Your task to perform on an android device: Open settings on Google Maps Image 0: 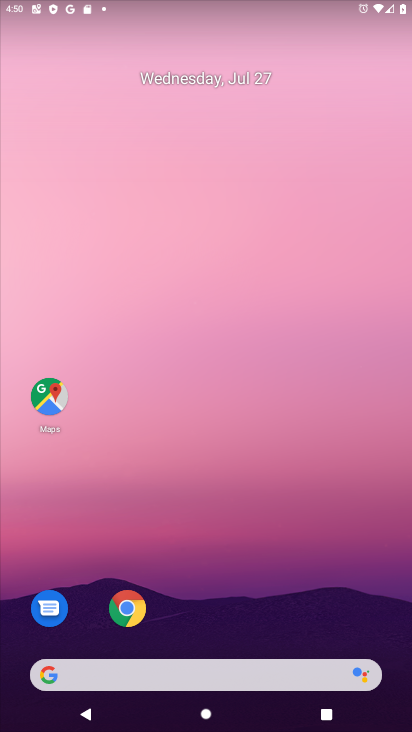
Step 0: drag from (199, 632) to (47, 22)
Your task to perform on an android device: Open settings on Google Maps Image 1: 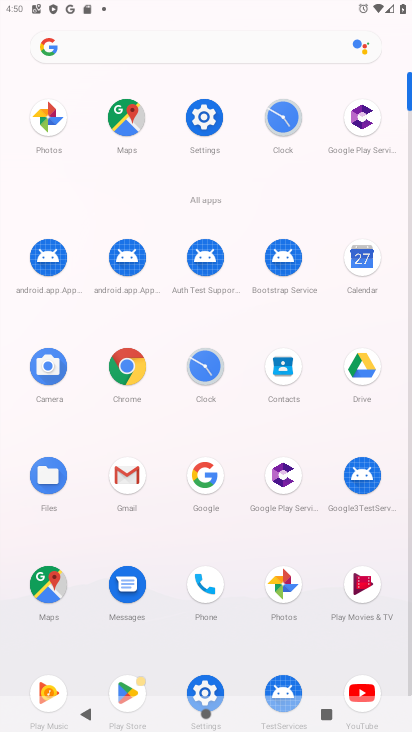
Step 1: click (55, 580)
Your task to perform on an android device: Open settings on Google Maps Image 2: 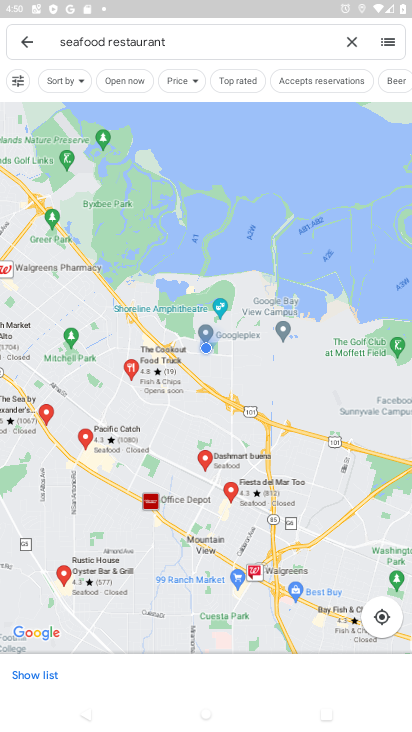
Step 2: click (24, 45)
Your task to perform on an android device: Open settings on Google Maps Image 3: 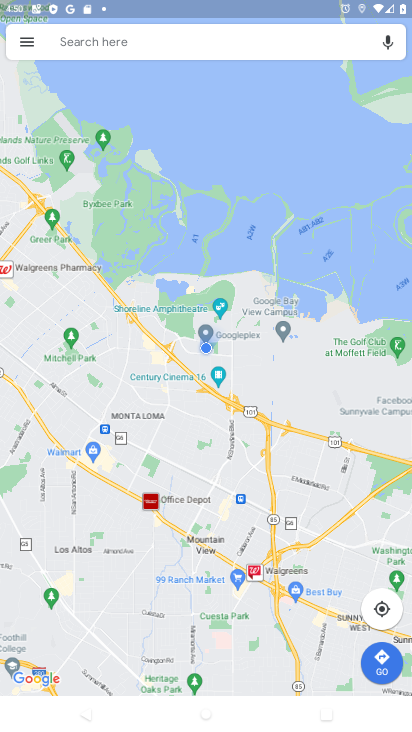
Step 3: click (24, 45)
Your task to perform on an android device: Open settings on Google Maps Image 4: 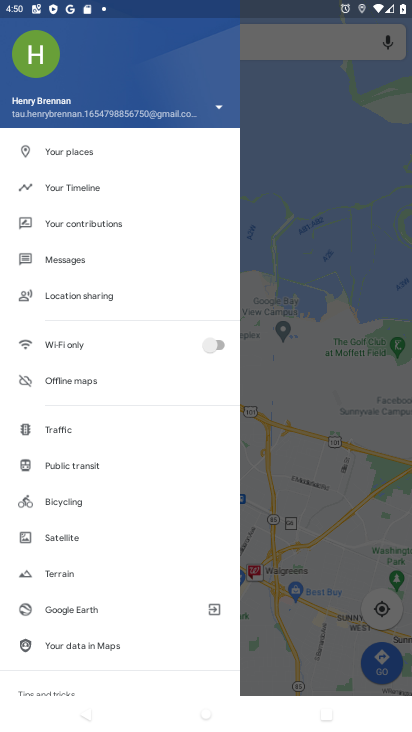
Step 4: drag from (112, 555) to (35, 160)
Your task to perform on an android device: Open settings on Google Maps Image 5: 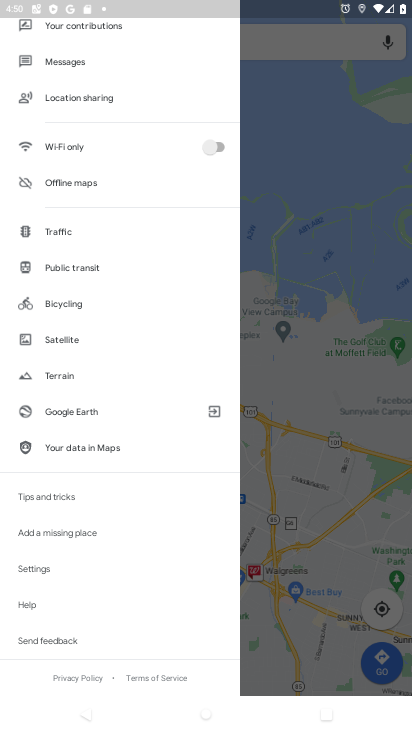
Step 5: click (41, 572)
Your task to perform on an android device: Open settings on Google Maps Image 6: 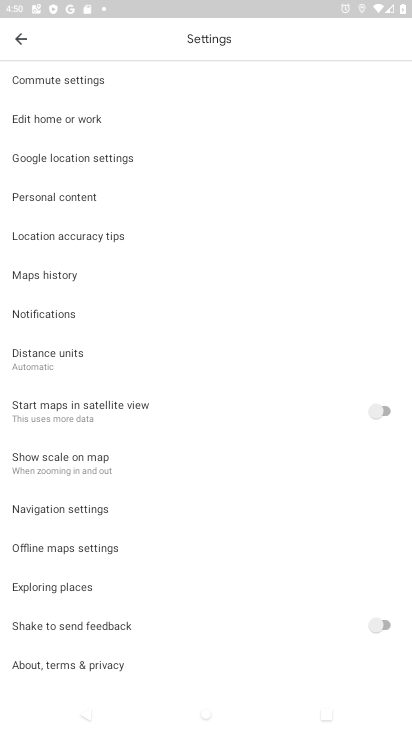
Step 6: task complete